Your task to perform on an android device: turn on priority inbox in the gmail app Image 0: 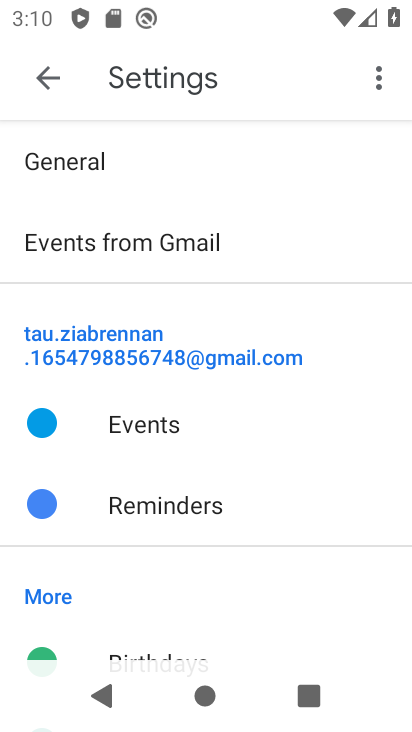
Step 0: press home button
Your task to perform on an android device: turn on priority inbox in the gmail app Image 1: 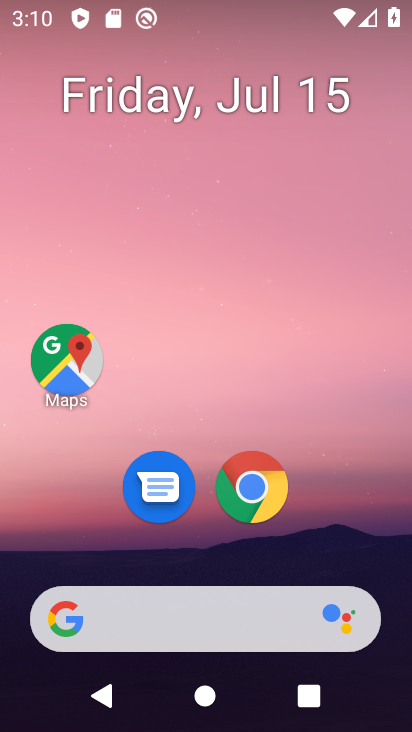
Step 1: drag from (253, 583) to (295, 71)
Your task to perform on an android device: turn on priority inbox in the gmail app Image 2: 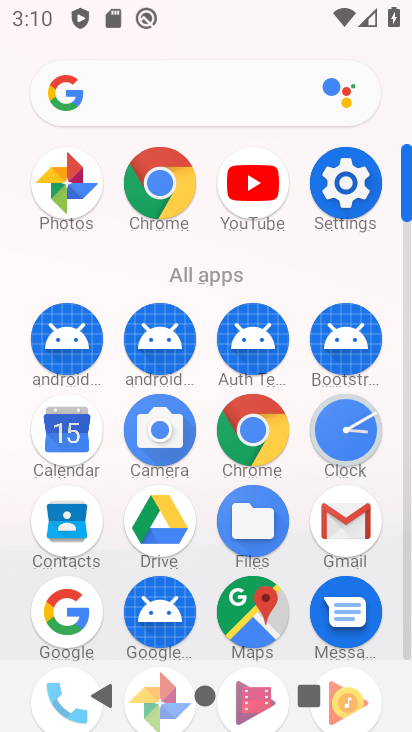
Step 2: click (341, 532)
Your task to perform on an android device: turn on priority inbox in the gmail app Image 3: 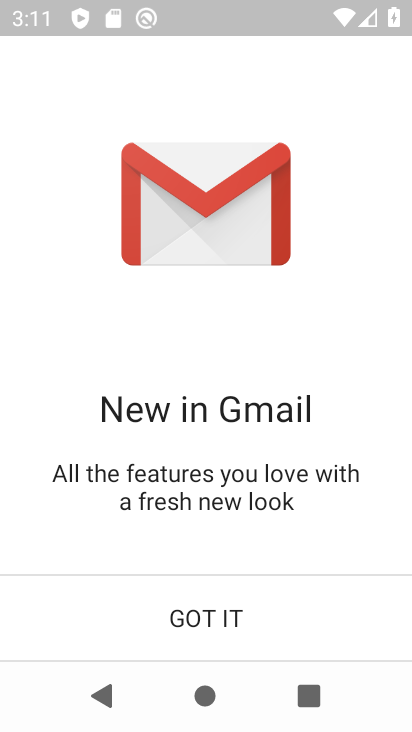
Step 3: click (218, 604)
Your task to perform on an android device: turn on priority inbox in the gmail app Image 4: 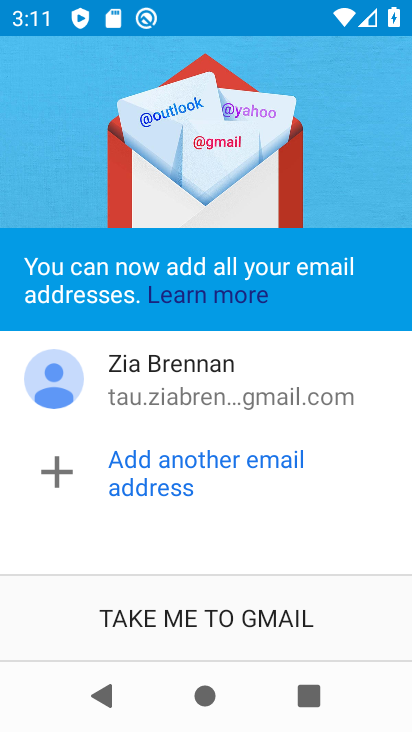
Step 4: click (217, 628)
Your task to perform on an android device: turn on priority inbox in the gmail app Image 5: 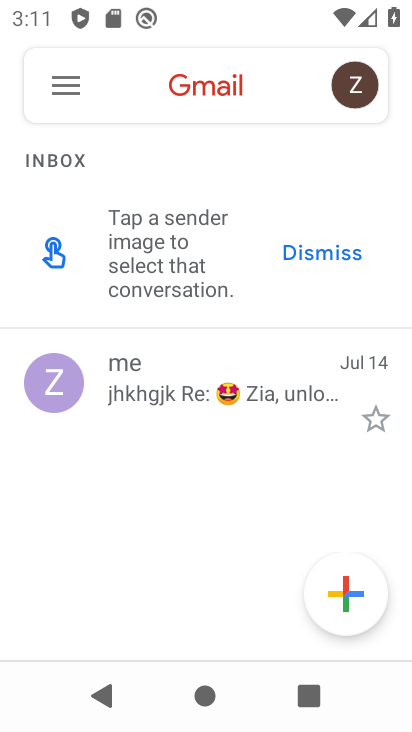
Step 5: click (70, 87)
Your task to perform on an android device: turn on priority inbox in the gmail app Image 6: 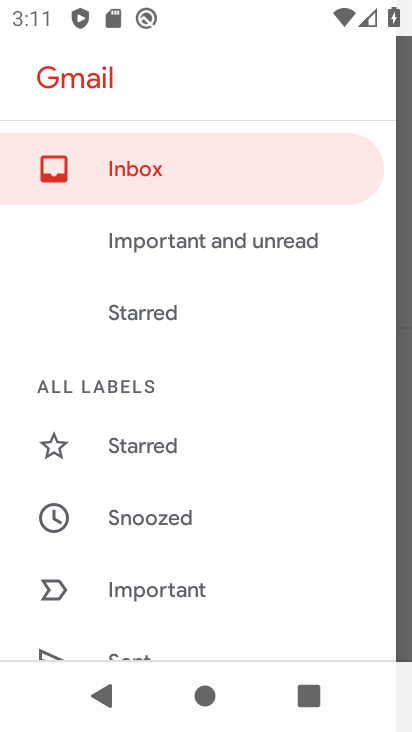
Step 6: drag from (148, 586) to (213, 306)
Your task to perform on an android device: turn on priority inbox in the gmail app Image 7: 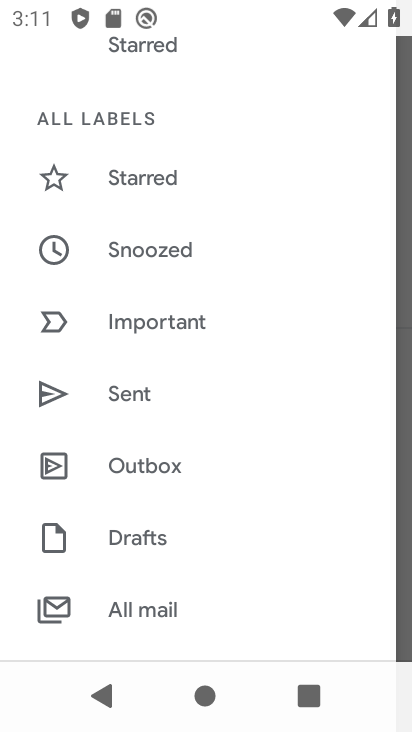
Step 7: drag from (184, 501) to (195, 285)
Your task to perform on an android device: turn on priority inbox in the gmail app Image 8: 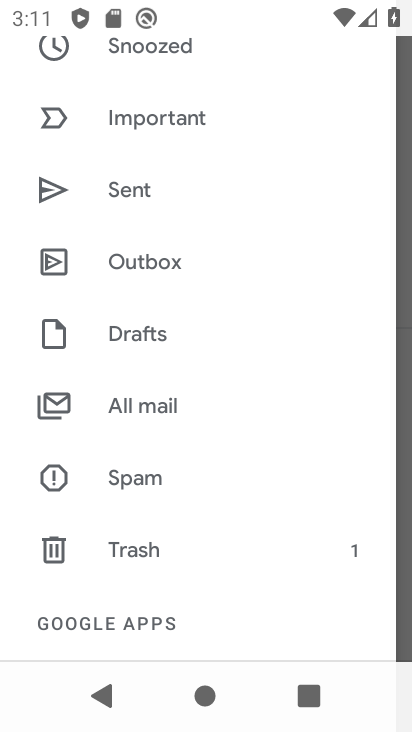
Step 8: drag from (148, 589) to (173, 336)
Your task to perform on an android device: turn on priority inbox in the gmail app Image 9: 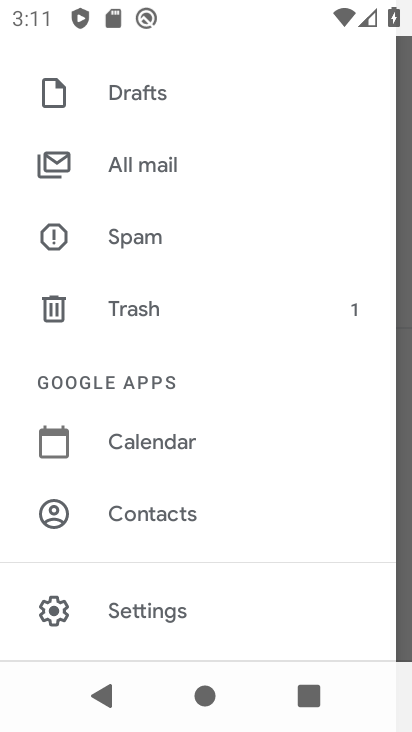
Step 9: click (232, 318)
Your task to perform on an android device: turn on priority inbox in the gmail app Image 10: 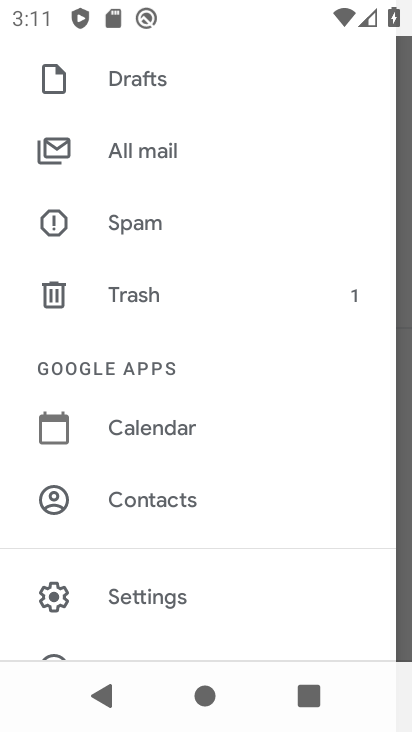
Step 10: click (144, 606)
Your task to perform on an android device: turn on priority inbox in the gmail app Image 11: 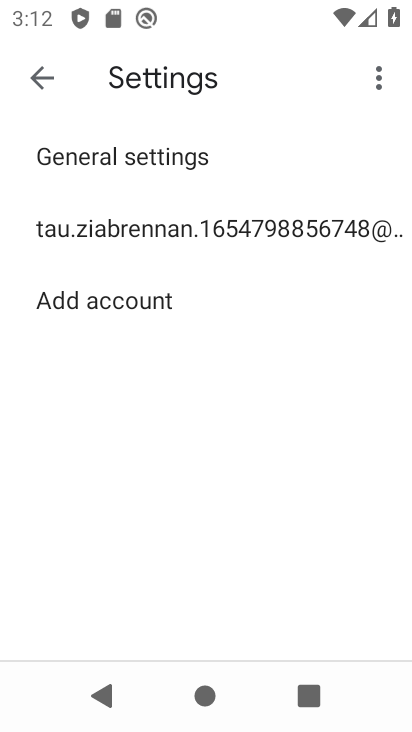
Step 11: click (171, 241)
Your task to perform on an android device: turn on priority inbox in the gmail app Image 12: 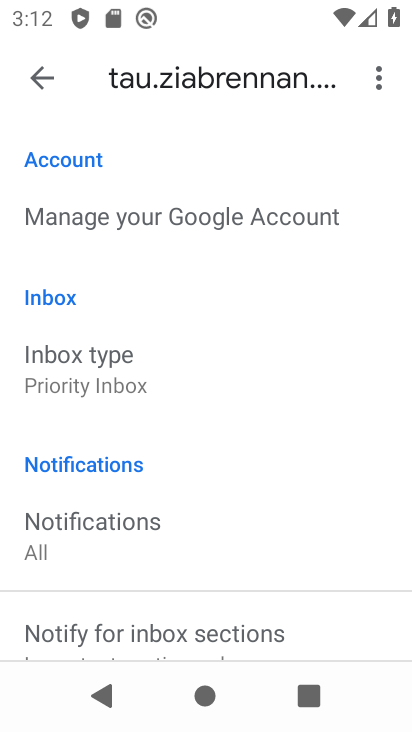
Step 12: task complete